Your task to perform on an android device: set the stopwatch Image 0: 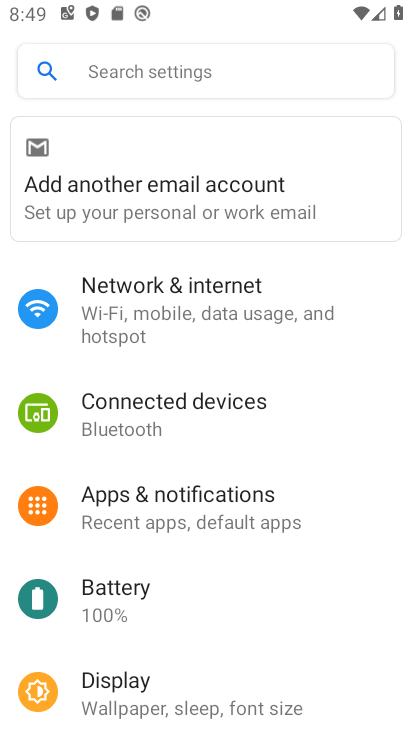
Step 0: press home button
Your task to perform on an android device: set the stopwatch Image 1: 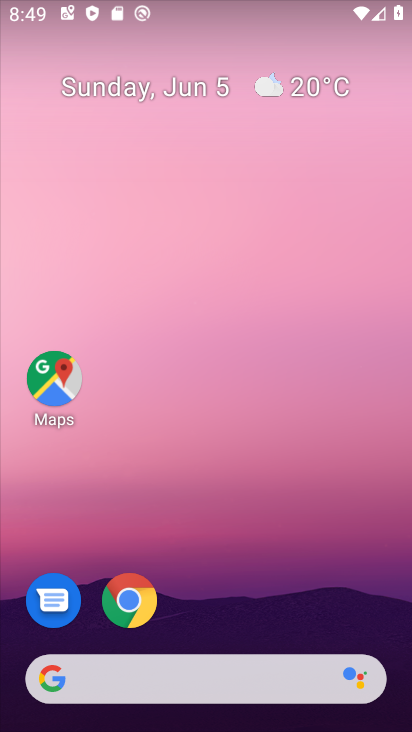
Step 1: drag from (265, 540) to (286, 0)
Your task to perform on an android device: set the stopwatch Image 2: 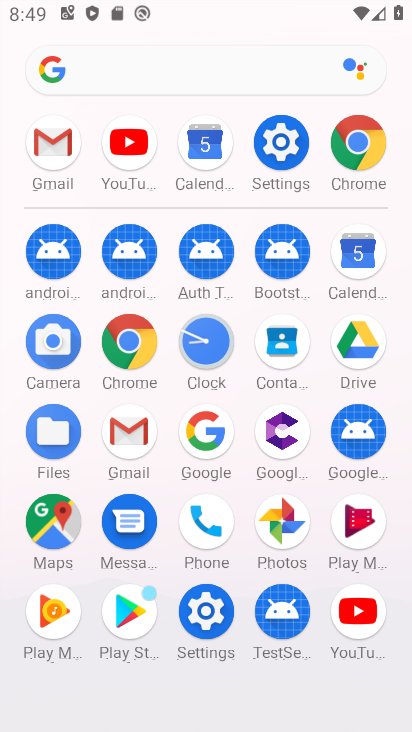
Step 2: click (216, 348)
Your task to perform on an android device: set the stopwatch Image 3: 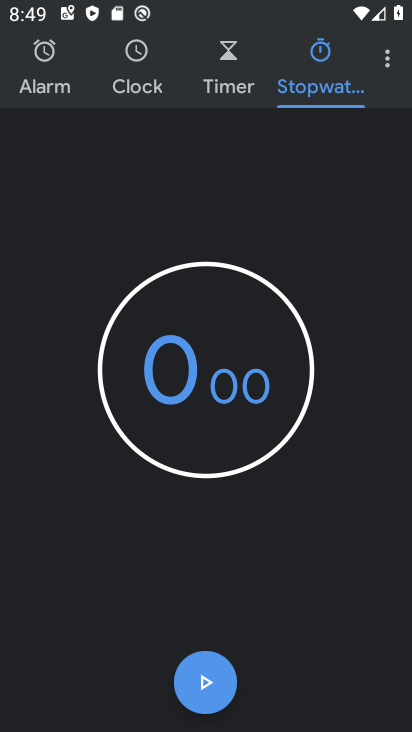
Step 3: click (314, 77)
Your task to perform on an android device: set the stopwatch Image 4: 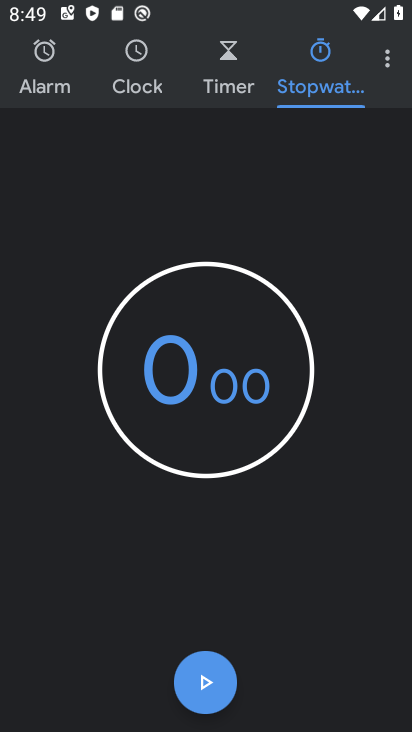
Step 4: task complete